Your task to perform on an android device: open app "ZOOM Cloud Meetings" Image 0: 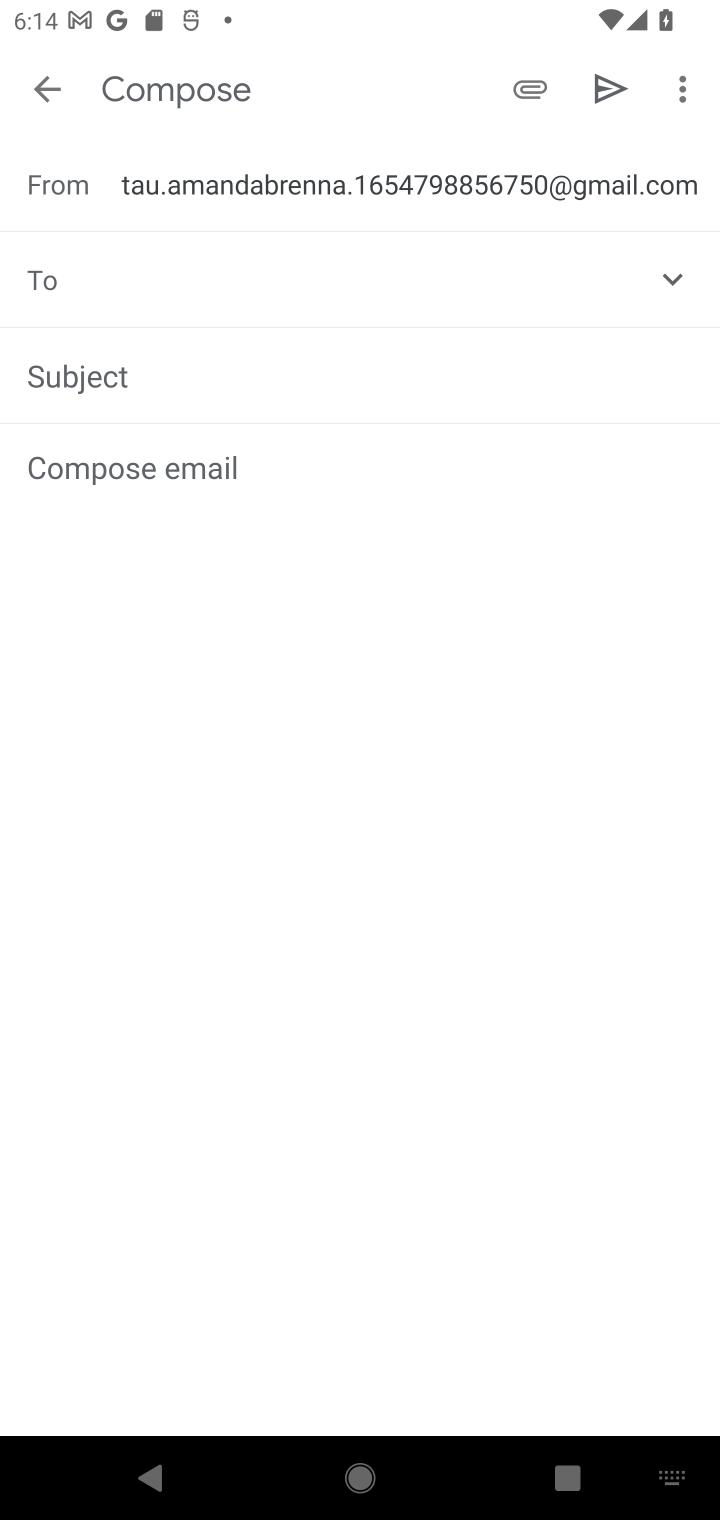
Step 0: press home button
Your task to perform on an android device: open app "ZOOM Cloud Meetings" Image 1: 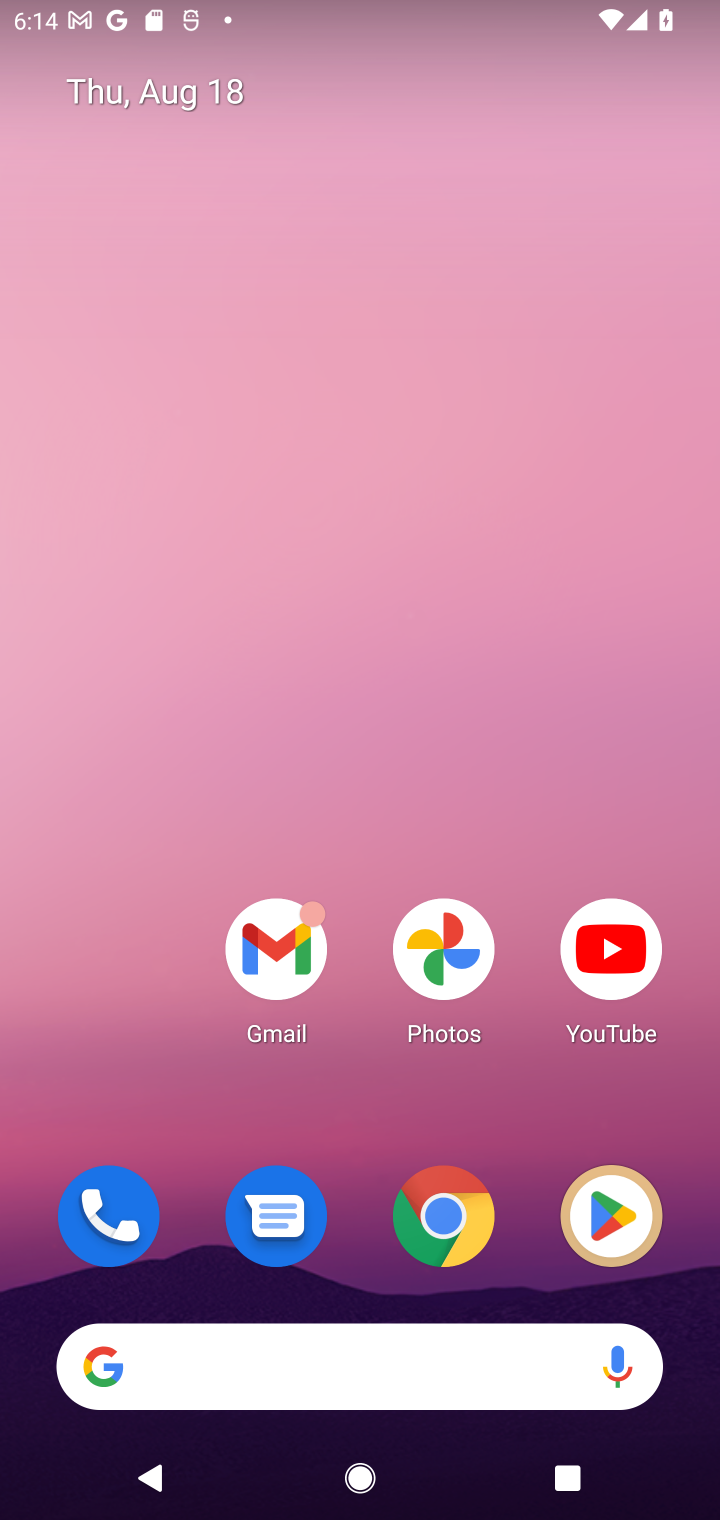
Step 1: click (614, 1221)
Your task to perform on an android device: open app "ZOOM Cloud Meetings" Image 2: 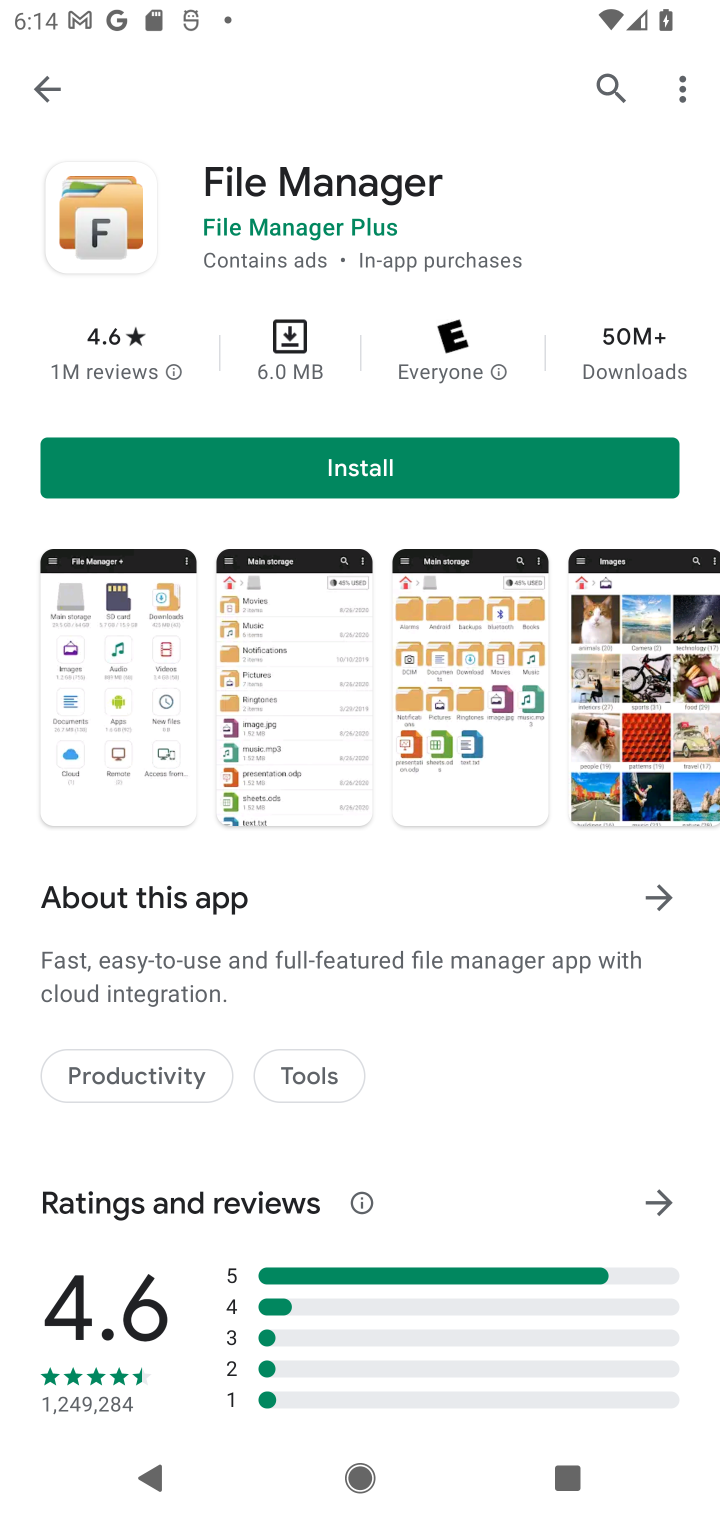
Step 2: click (601, 86)
Your task to perform on an android device: open app "ZOOM Cloud Meetings" Image 3: 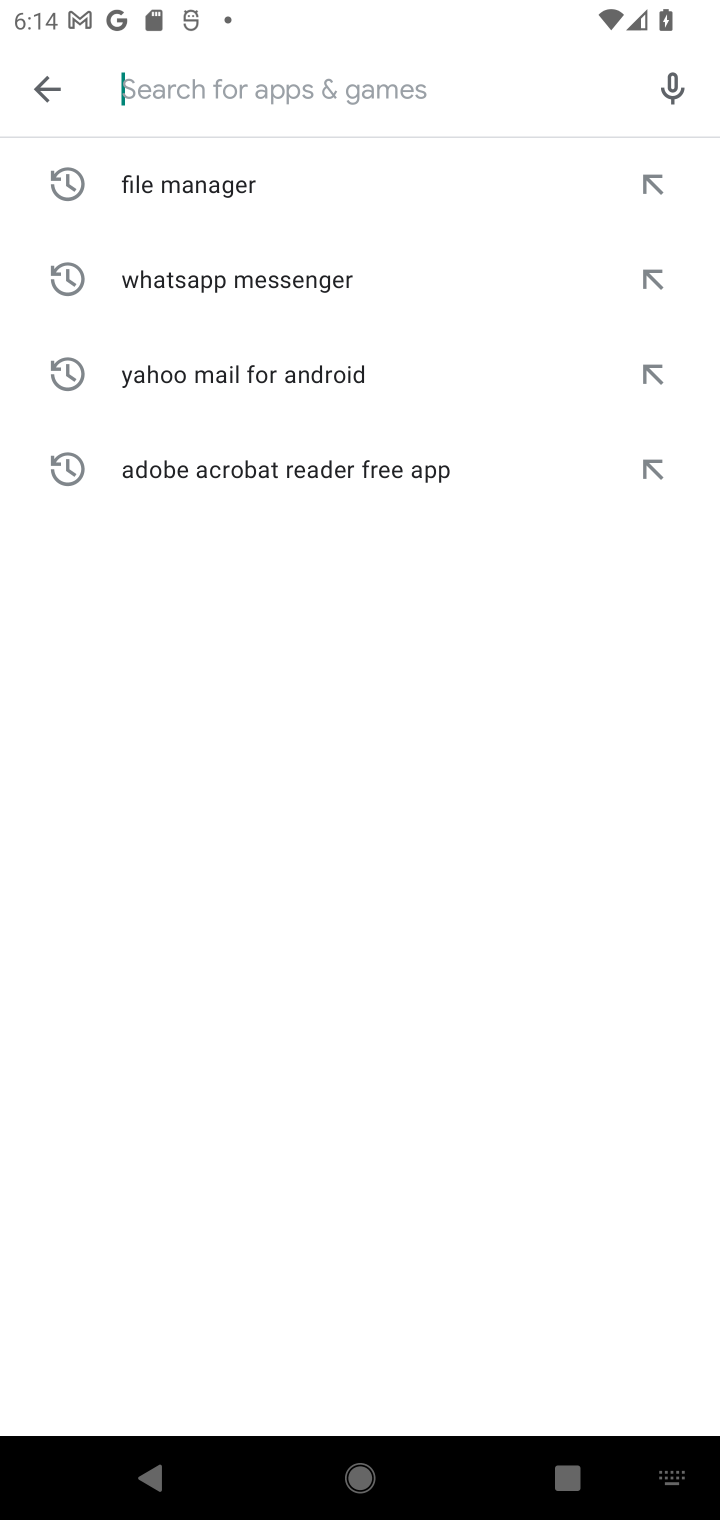
Step 3: type "ZOOM Cloud Meetings"
Your task to perform on an android device: open app "ZOOM Cloud Meetings" Image 4: 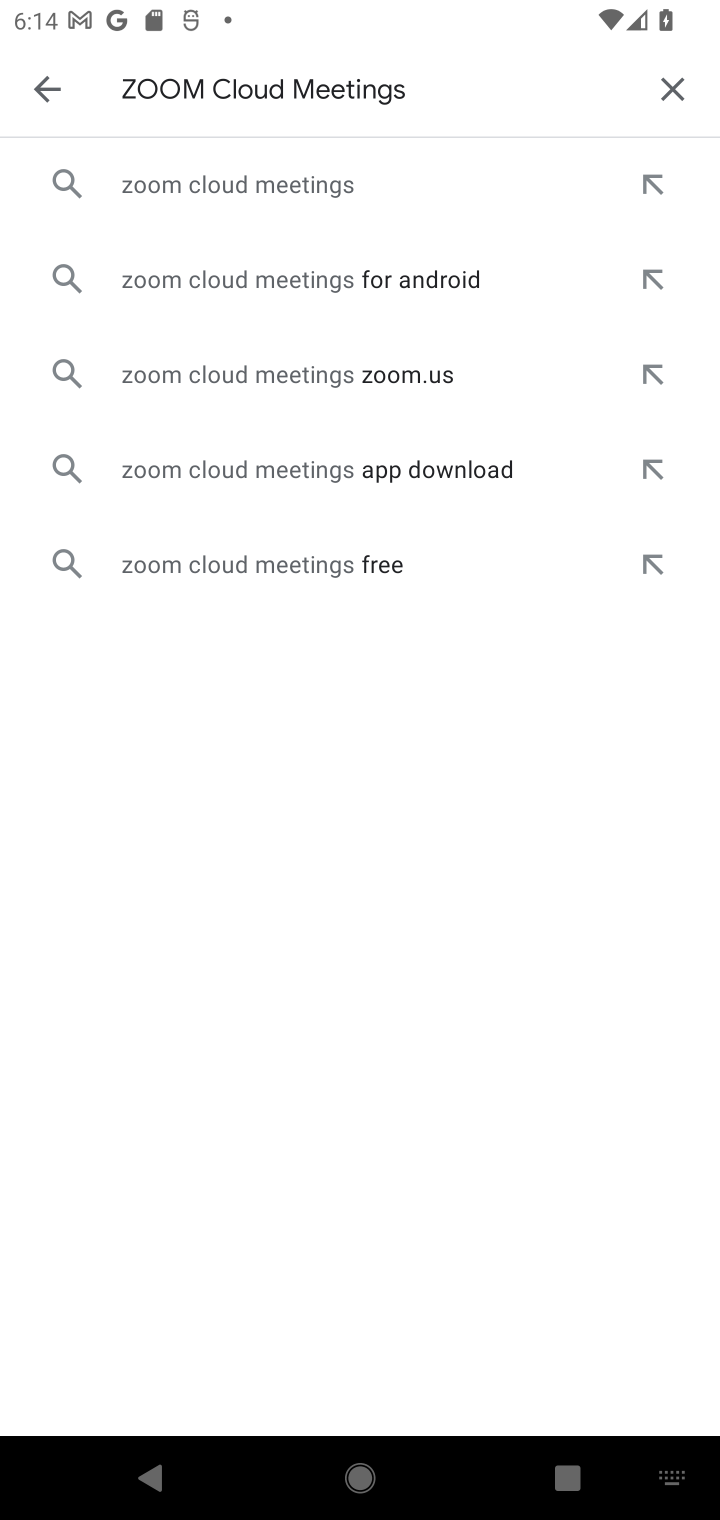
Step 4: click (210, 174)
Your task to perform on an android device: open app "ZOOM Cloud Meetings" Image 5: 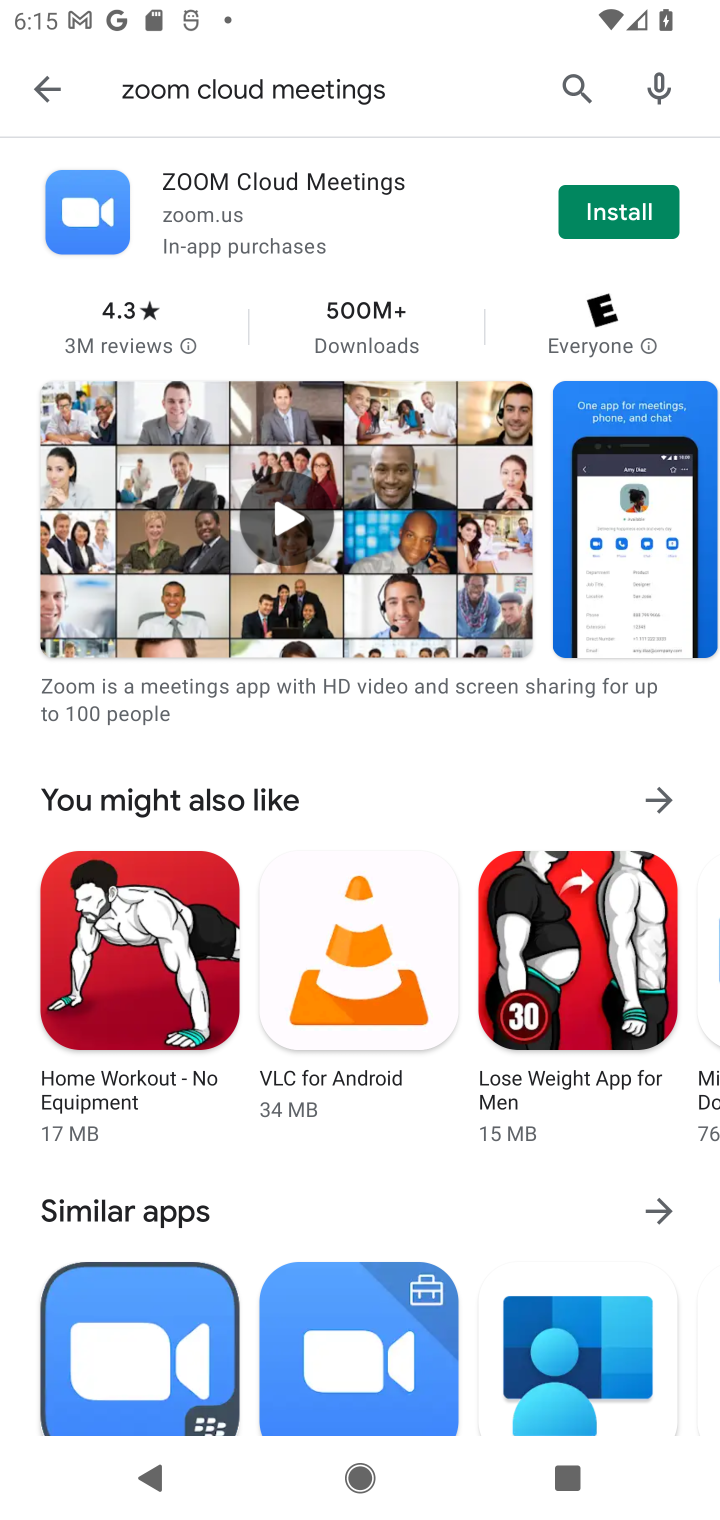
Step 5: task complete